Your task to perform on an android device: turn on data saver in the chrome app Image 0: 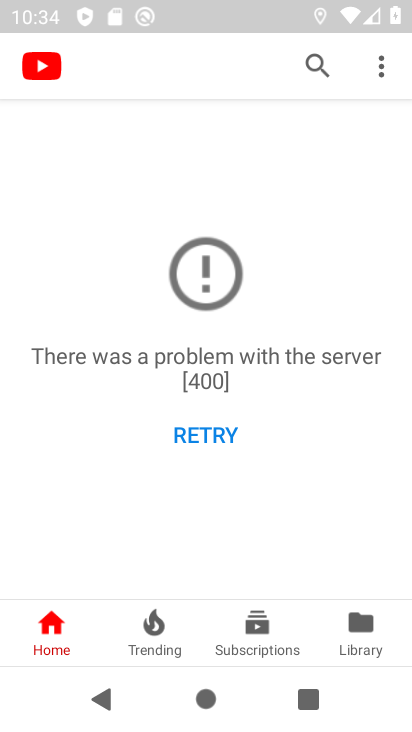
Step 0: press home button
Your task to perform on an android device: turn on data saver in the chrome app Image 1: 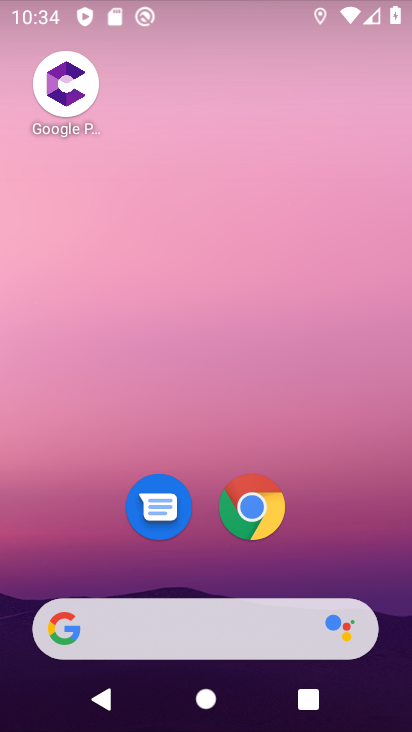
Step 1: drag from (377, 648) to (298, 2)
Your task to perform on an android device: turn on data saver in the chrome app Image 2: 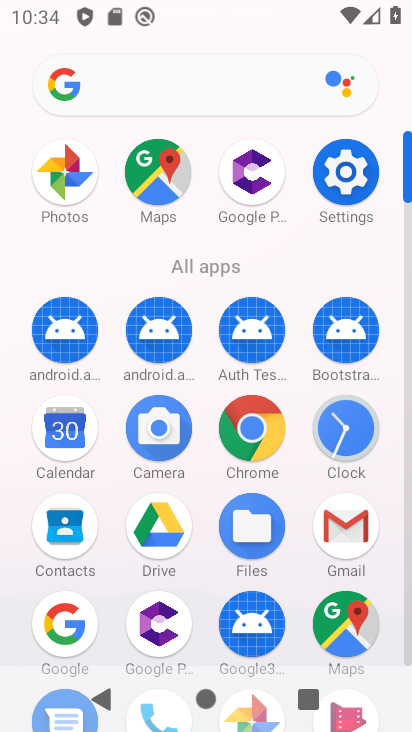
Step 2: click (261, 430)
Your task to perform on an android device: turn on data saver in the chrome app Image 3: 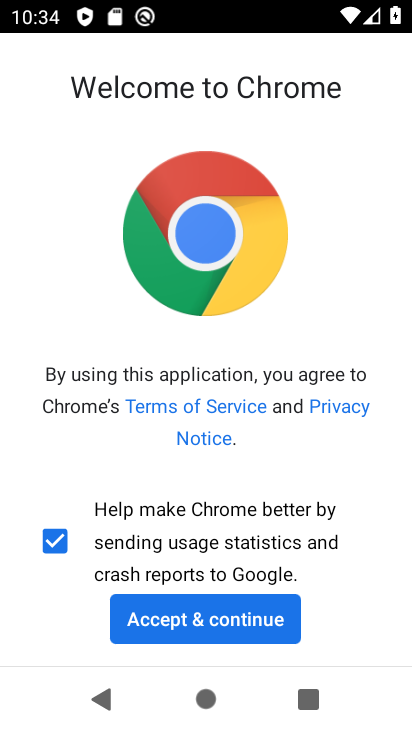
Step 3: click (200, 610)
Your task to perform on an android device: turn on data saver in the chrome app Image 4: 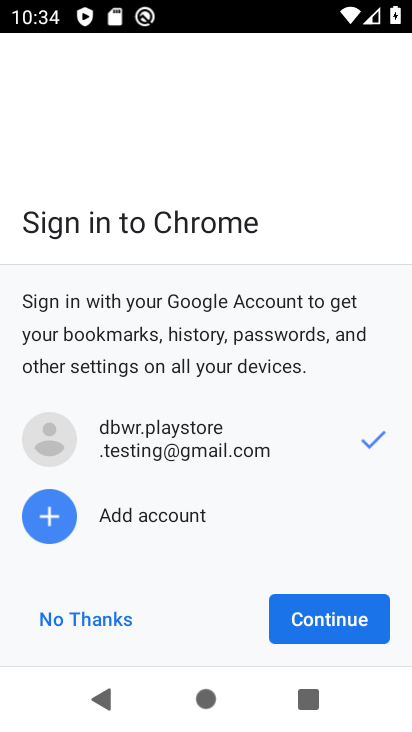
Step 4: click (317, 634)
Your task to perform on an android device: turn on data saver in the chrome app Image 5: 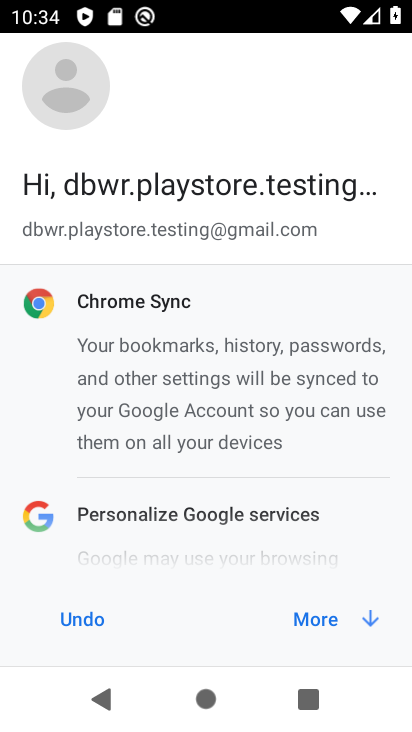
Step 5: click (322, 621)
Your task to perform on an android device: turn on data saver in the chrome app Image 6: 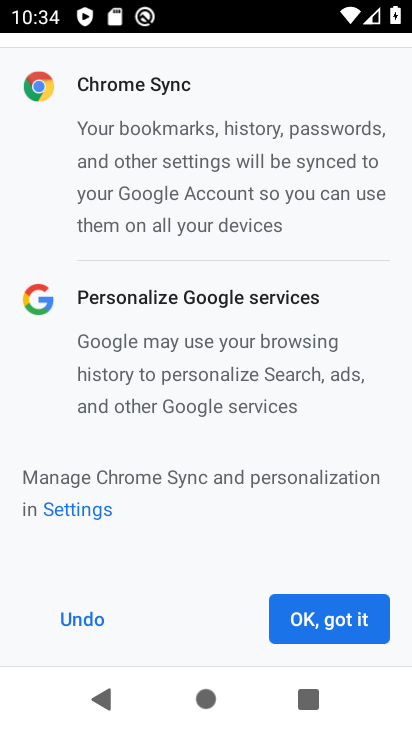
Step 6: click (322, 621)
Your task to perform on an android device: turn on data saver in the chrome app Image 7: 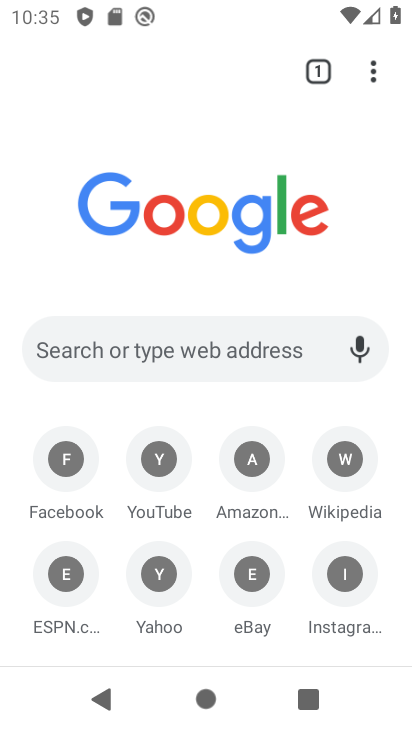
Step 7: click (380, 66)
Your task to perform on an android device: turn on data saver in the chrome app Image 8: 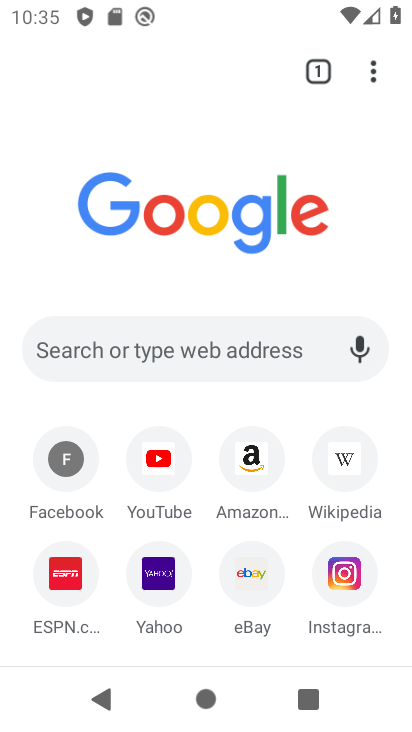
Step 8: click (368, 73)
Your task to perform on an android device: turn on data saver in the chrome app Image 9: 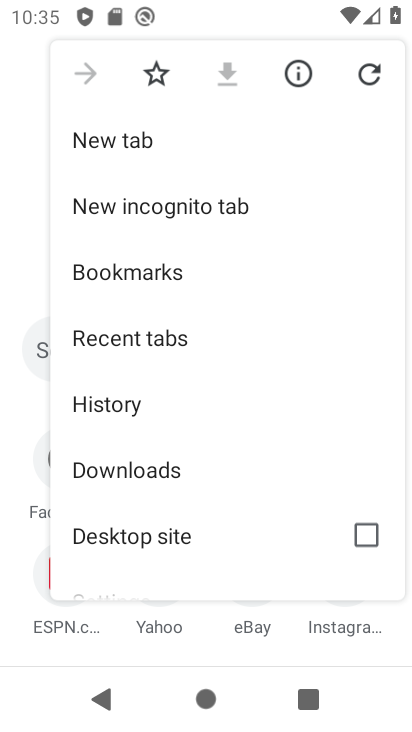
Step 9: drag from (139, 549) to (160, 282)
Your task to perform on an android device: turn on data saver in the chrome app Image 10: 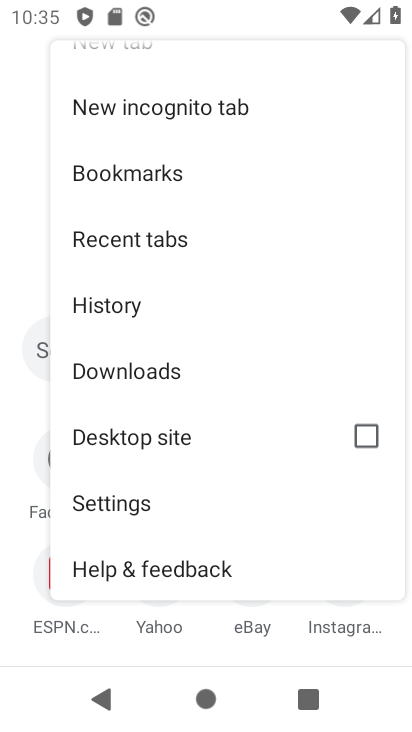
Step 10: click (166, 514)
Your task to perform on an android device: turn on data saver in the chrome app Image 11: 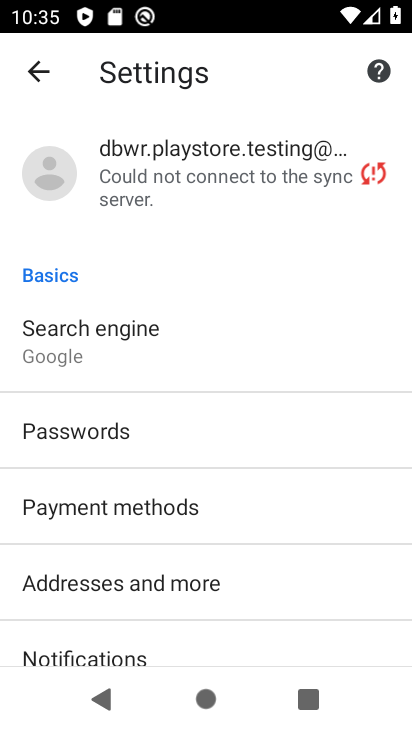
Step 11: drag from (188, 606) to (189, 175)
Your task to perform on an android device: turn on data saver in the chrome app Image 12: 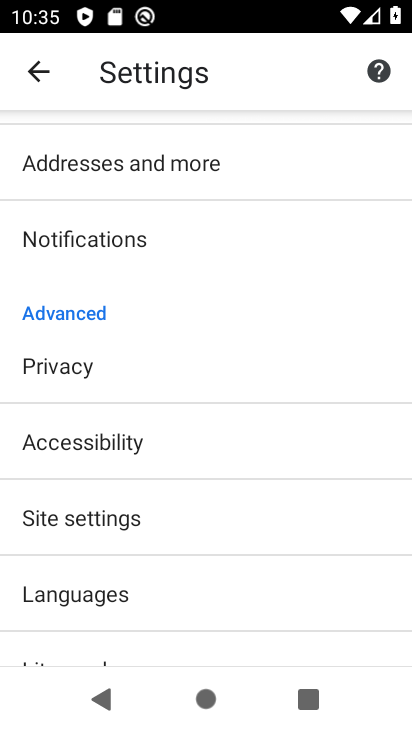
Step 12: drag from (161, 567) to (163, 238)
Your task to perform on an android device: turn on data saver in the chrome app Image 13: 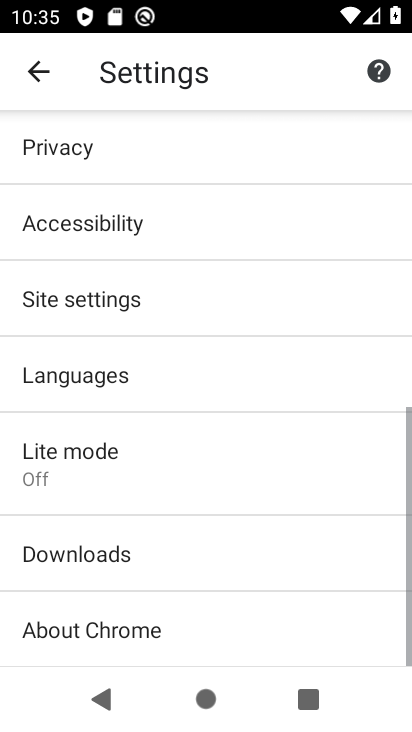
Step 13: click (149, 473)
Your task to perform on an android device: turn on data saver in the chrome app Image 14: 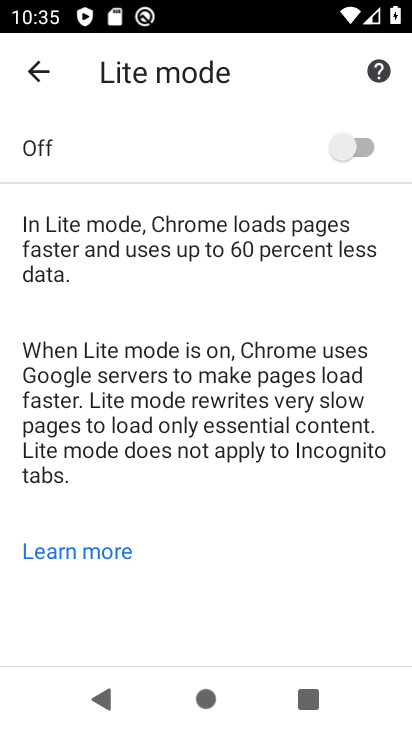
Step 14: click (326, 143)
Your task to perform on an android device: turn on data saver in the chrome app Image 15: 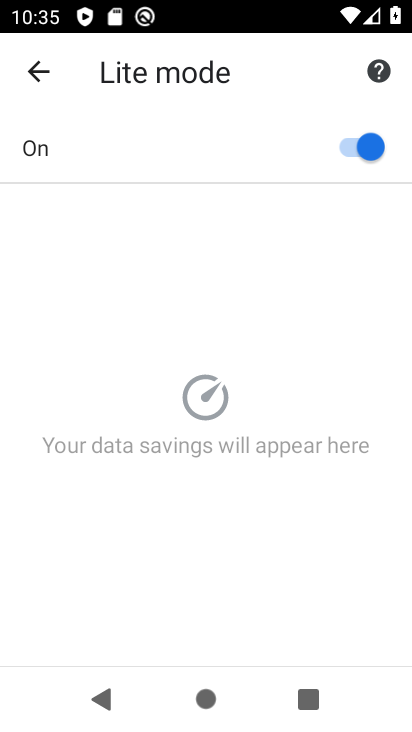
Step 15: task complete